Your task to perform on an android device: Open accessibility settings Image 0: 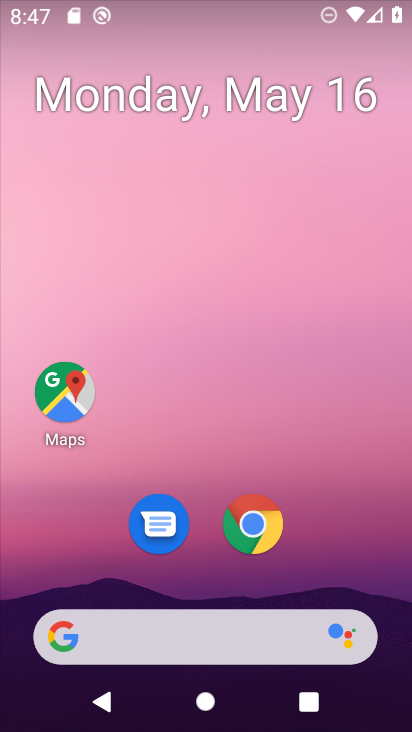
Step 0: drag from (313, 523) to (284, 69)
Your task to perform on an android device: Open accessibility settings Image 1: 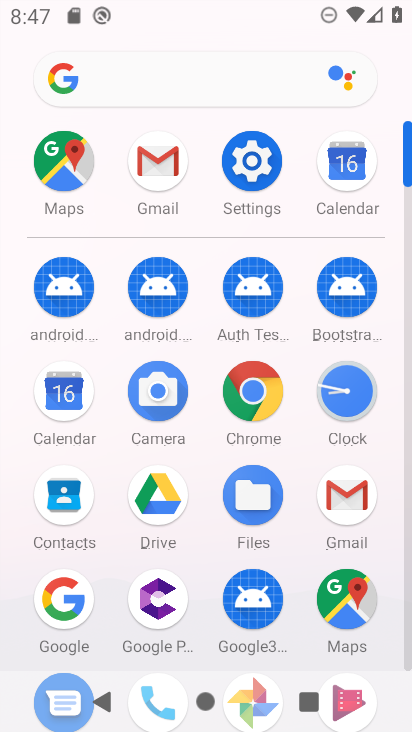
Step 1: click (257, 143)
Your task to perform on an android device: Open accessibility settings Image 2: 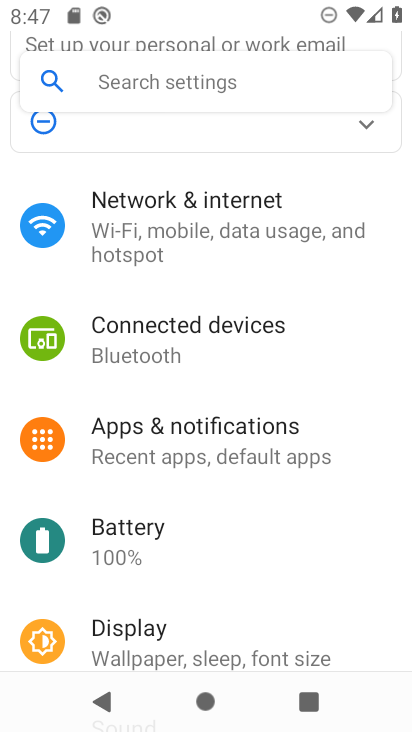
Step 2: drag from (259, 562) to (233, 88)
Your task to perform on an android device: Open accessibility settings Image 3: 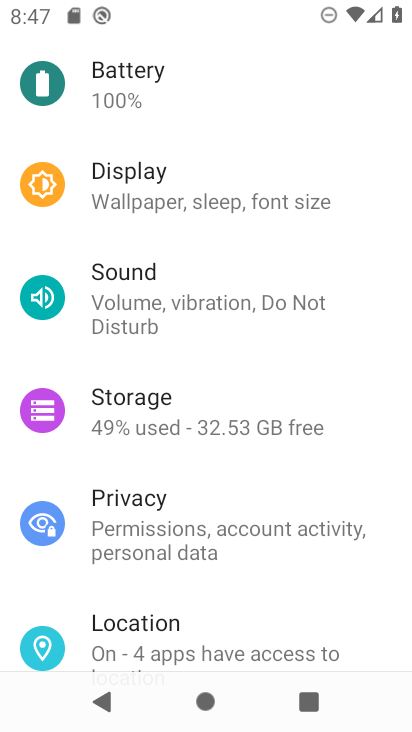
Step 3: drag from (215, 475) to (225, 88)
Your task to perform on an android device: Open accessibility settings Image 4: 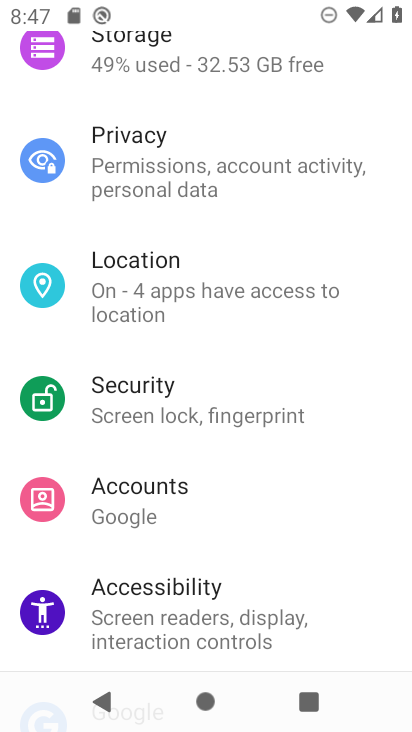
Step 4: click (212, 605)
Your task to perform on an android device: Open accessibility settings Image 5: 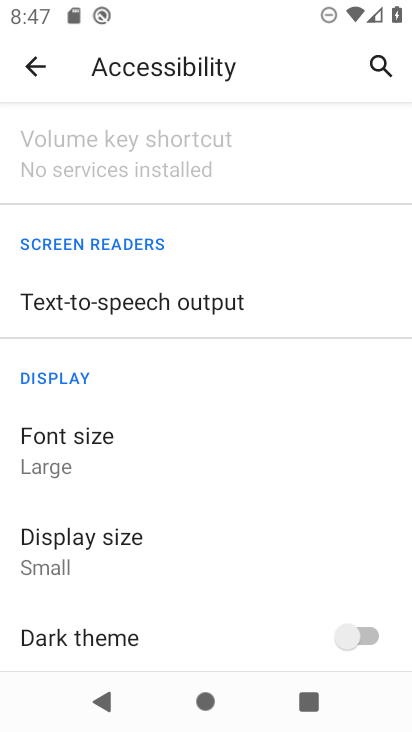
Step 5: task complete